Your task to perform on an android device: Open Reddit.com Image 0: 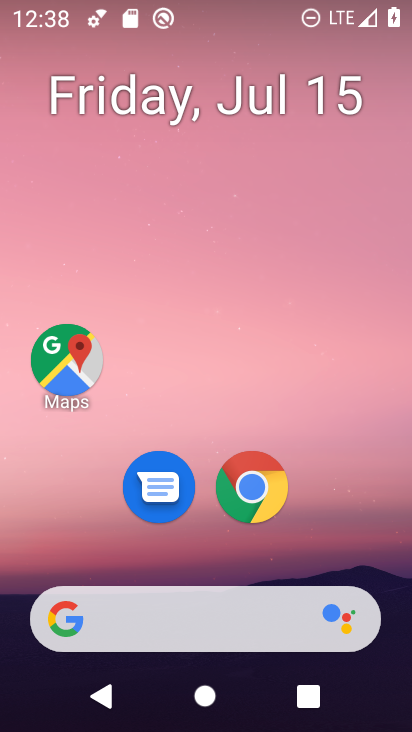
Step 0: drag from (209, 648) to (342, 255)
Your task to perform on an android device: Open Reddit.com Image 1: 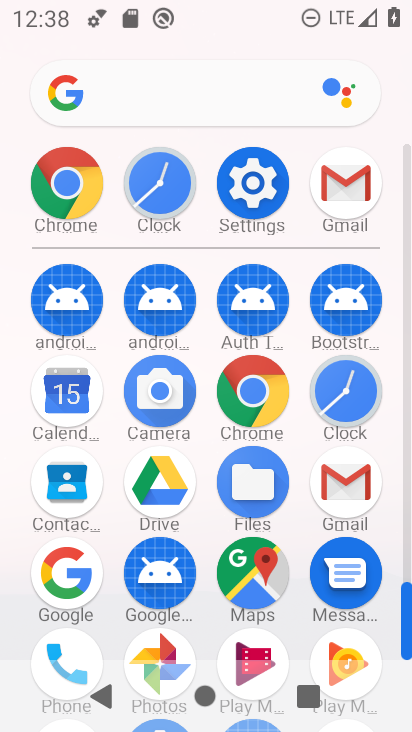
Step 1: click (84, 200)
Your task to perform on an android device: Open Reddit.com Image 2: 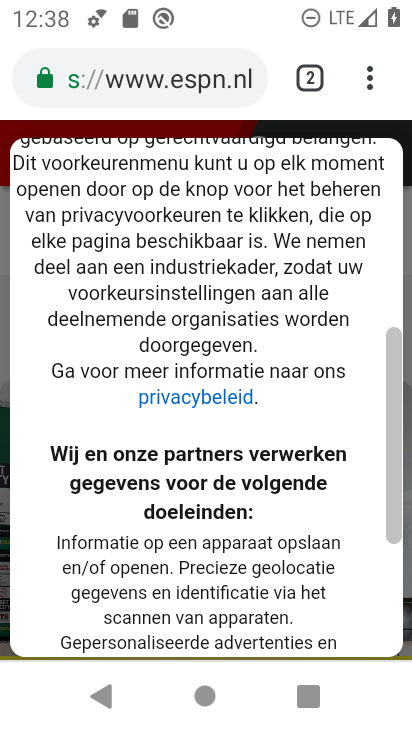
Step 2: click (214, 89)
Your task to perform on an android device: Open Reddit.com Image 3: 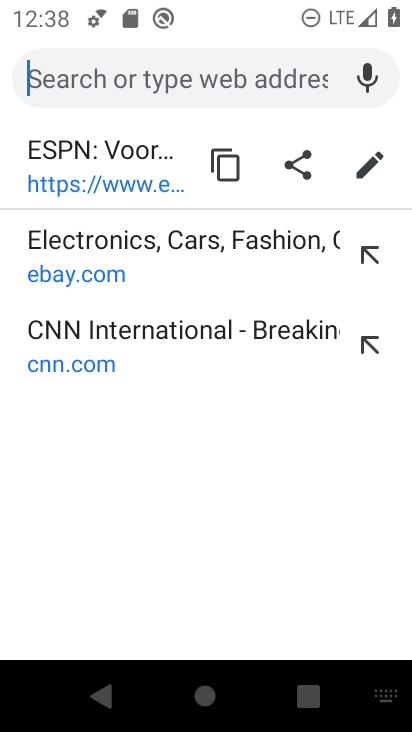
Step 3: type "reddit"
Your task to perform on an android device: Open Reddit.com Image 4: 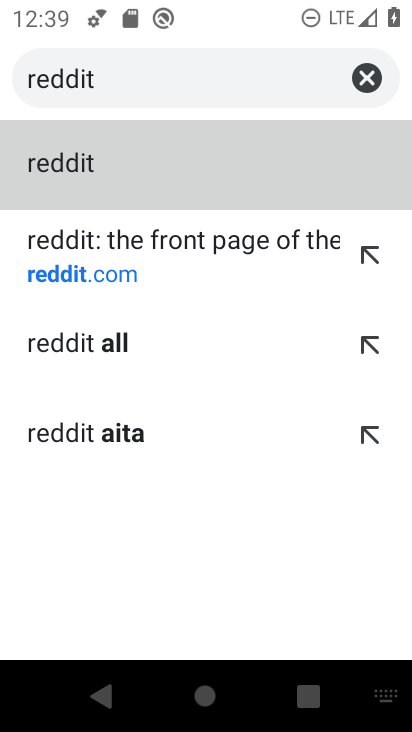
Step 4: click (219, 264)
Your task to perform on an android device: Open Reddit.com Image 5: 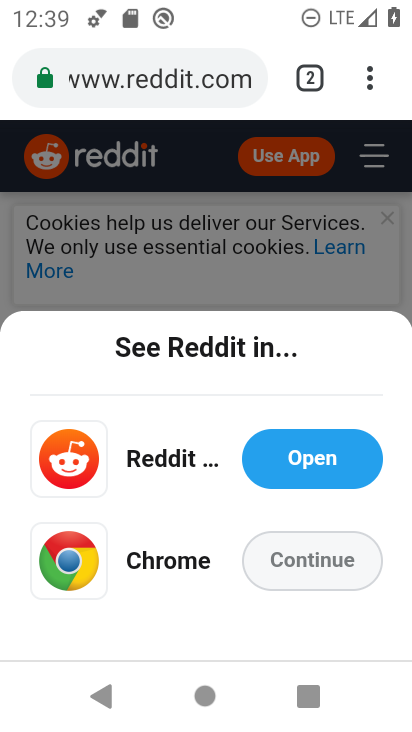
Step 5: task complete